Your task to perform on an android device: Find coffee shops on Maps Image 0: 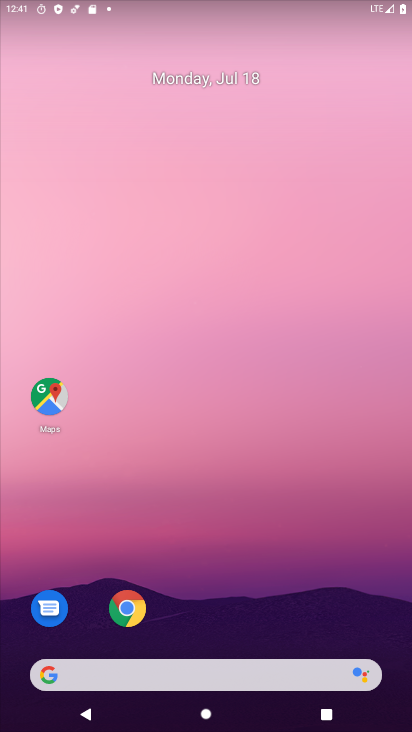
Step 0: drag from (297, 664) to (309, 130)
Your task to perform on an android device: Find coffee shops on Maps Image 1: 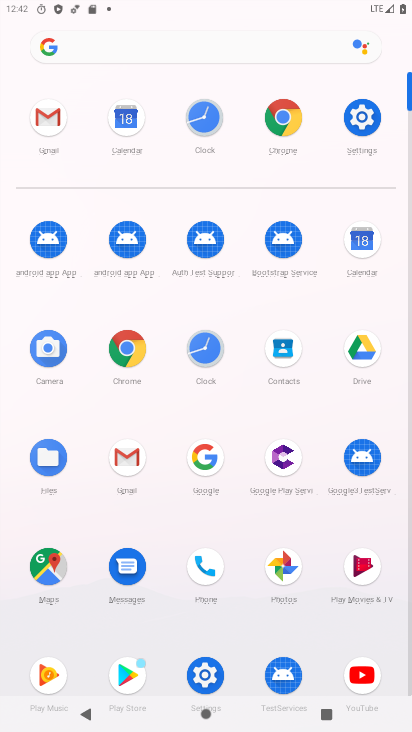
Step 1: click (55, 570)
Your task to perform on an android device: Find coffee shops on Maps Image 2: 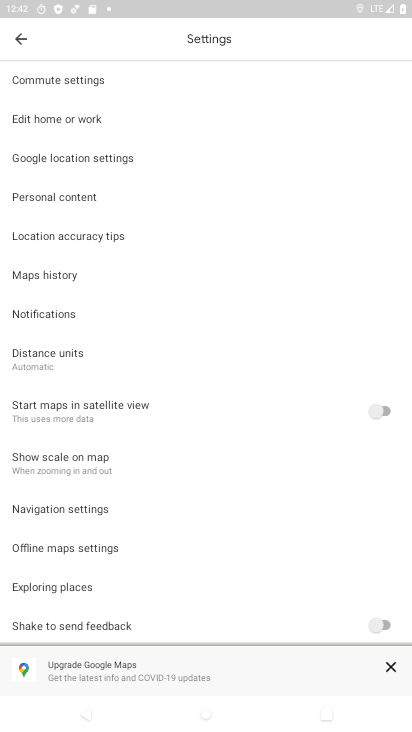
Step 2: click (12, 45)
Your task to perform on an android device: Find coffee shops on Maps Image 3: 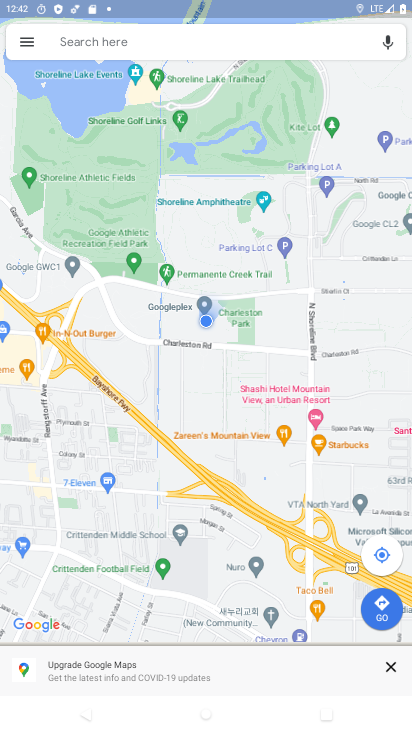
Step 3: click (92, 52)
Your task to perform on an android device: Find coffee shops on Maps Image 4: 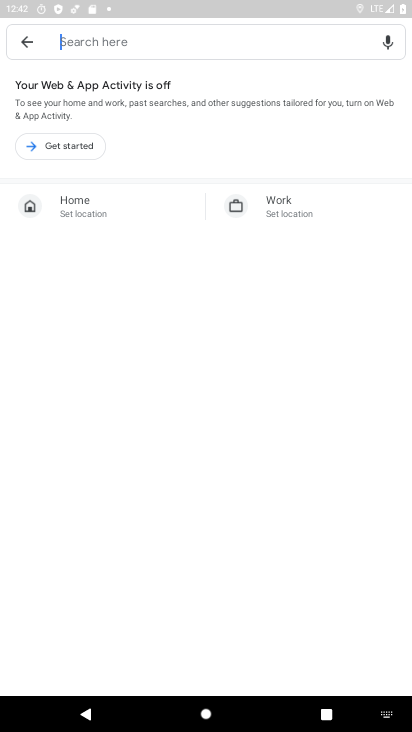
Step 4: type "coffee"
Your task to perform on an android device: Find coffee shops on Maps Image 5: 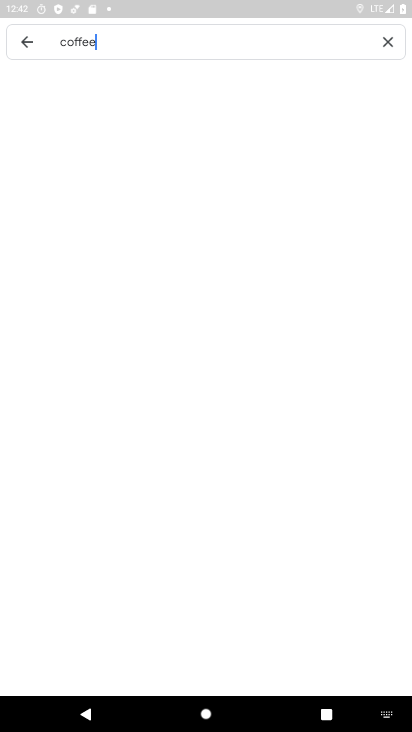
Step 5: press enter
Your task to perform on an android device: Find coffee shops on Maps Image 6: 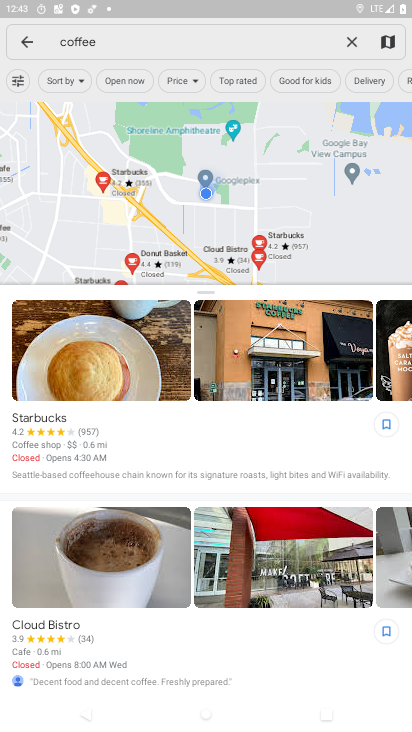
Step 6: task complete